Your task to perform on an android device: Check the news Image 0: 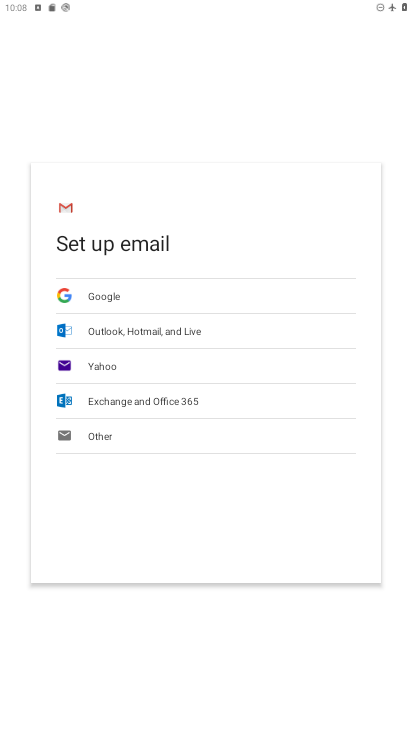
Step 0: press home button
Your task to perform on an android device: Check the news Image 1: 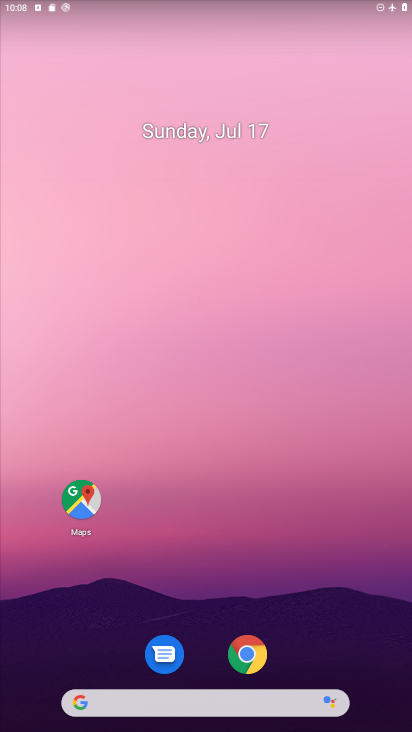
Step 1: drag from (206, 625) to (180, 173)
Your task to perform on an android device: Check the news Image 2: 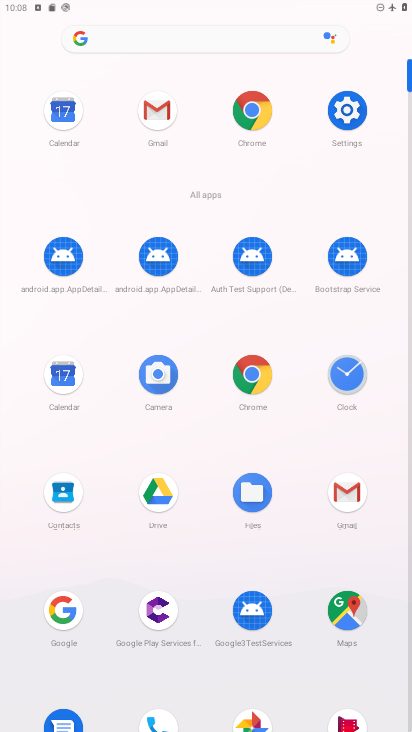
Step 2: click (61, 612)
Your task to perform on an android device: Check the news Image 3: 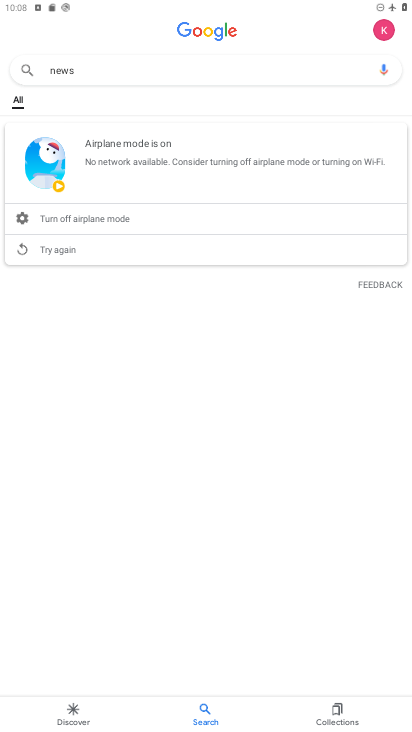
Step 3: task complete